Your task to perform on an android device: open chrome privacy settings Image 0: 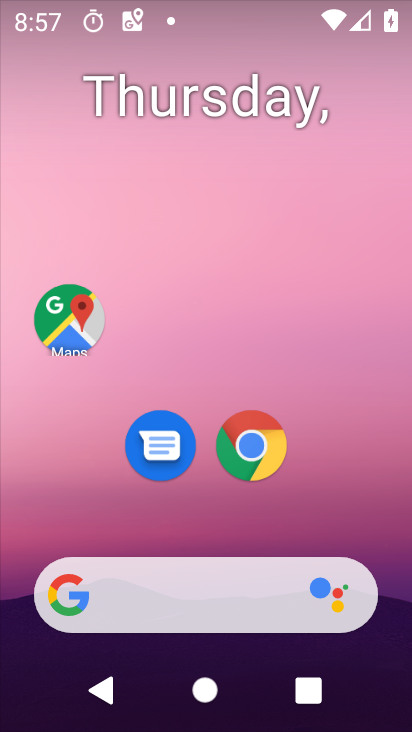
Step 0: press home button
Your task to perform on an android device: open chrome privacy settings Image 1: 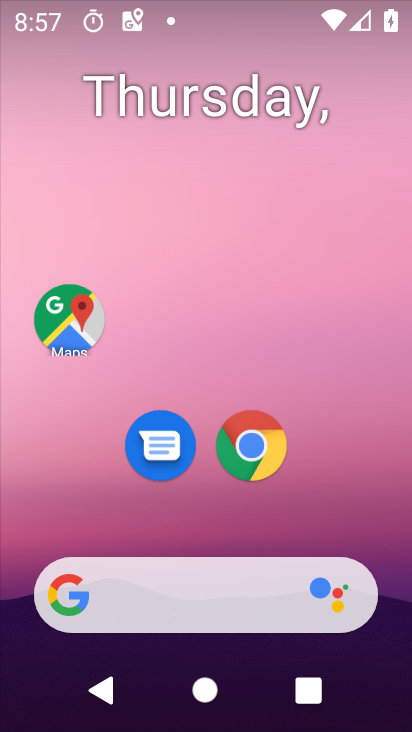
Step 1: click (261, 448)
Your task to perform on an android device: open chrome privacy settings Image 2: 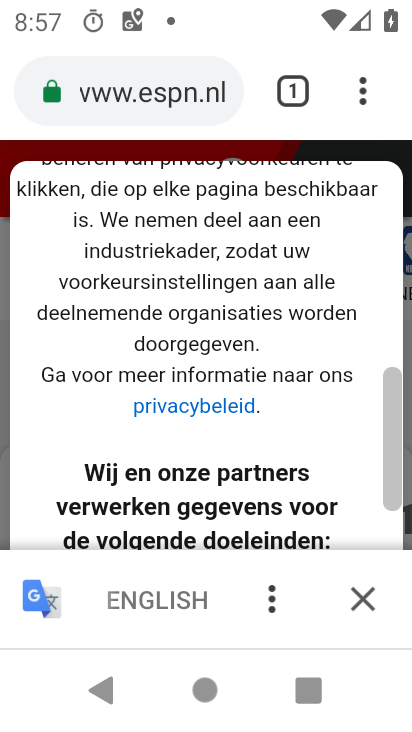
Step 2: click (372, 597)
Your task to perform on an android device: open chrome privacy settings Image 3: 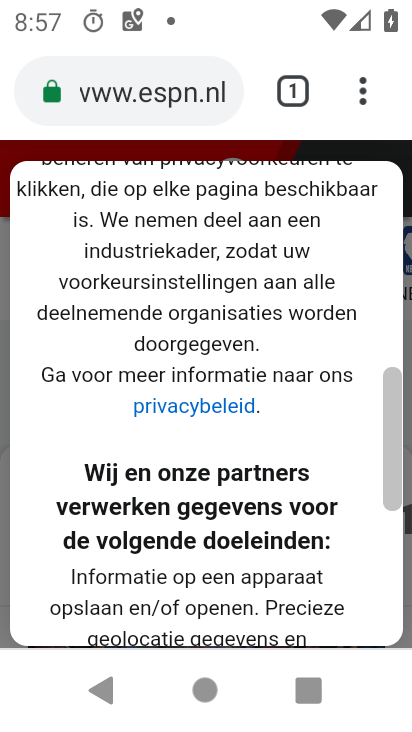
Step 3: click (363, 94)
Your task to perform on an android device: open chrome privacy settings Image 4: 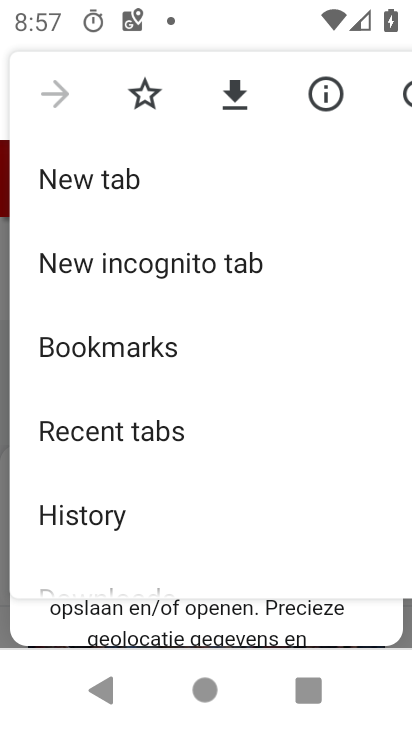
Step 4: drag from (106, 563) to (263, 177)
Your task to perform on an android device: open chrome privacy settings Image 5: 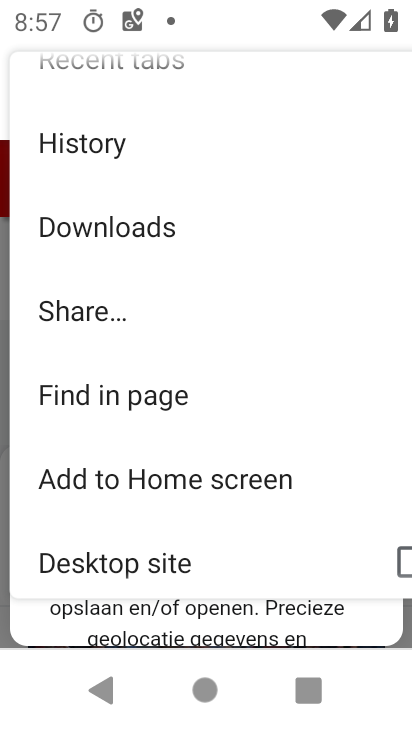
Step 5: drag from (104, 576) to (249, 222)
Your task to perform on an android device: open chrome privacy settings Image 6: 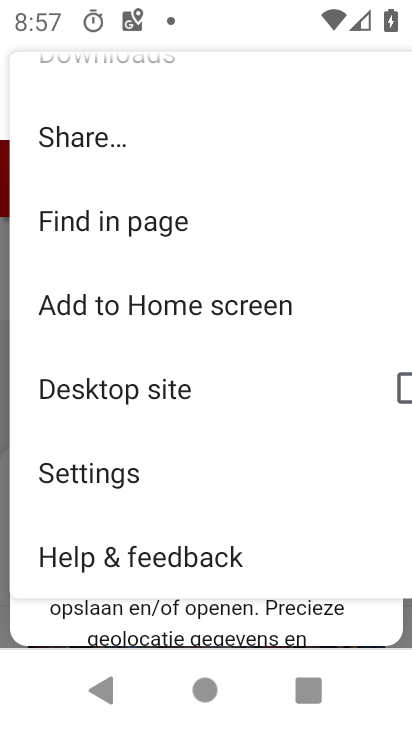
Step 6: click (157, 464)
Your task to perform on an android device: open chrome privacy settings Image 7: 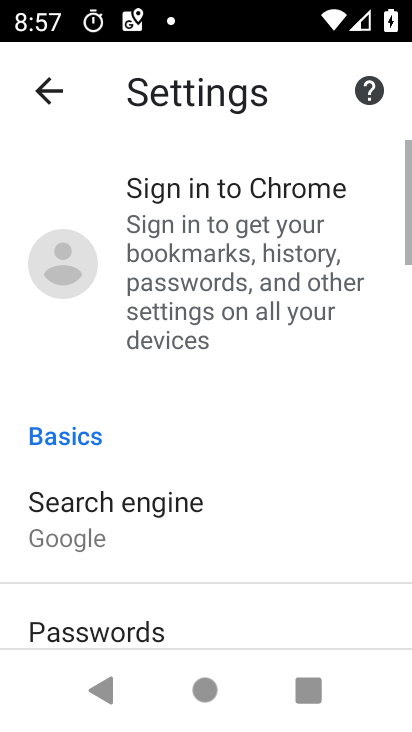
Step 7: drag from (97, 569) to (245, 212)
Your task to perform on an android device: open chrome privacy settings Image 8: 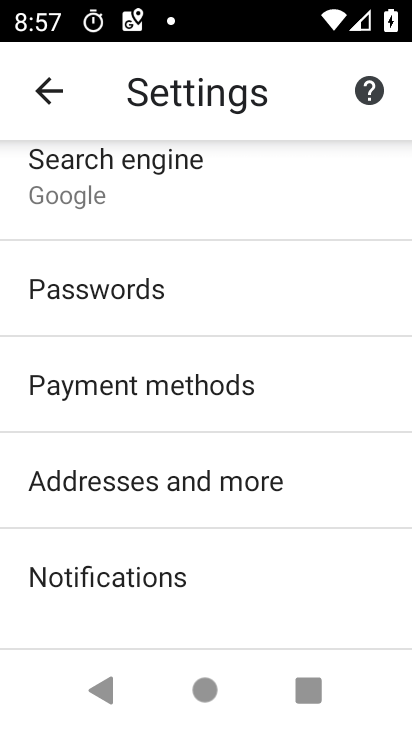
Step 8: drag from (152, 545) to (247, 240)
Your task to perform on an android device: open chrome privacy settings Image 9: 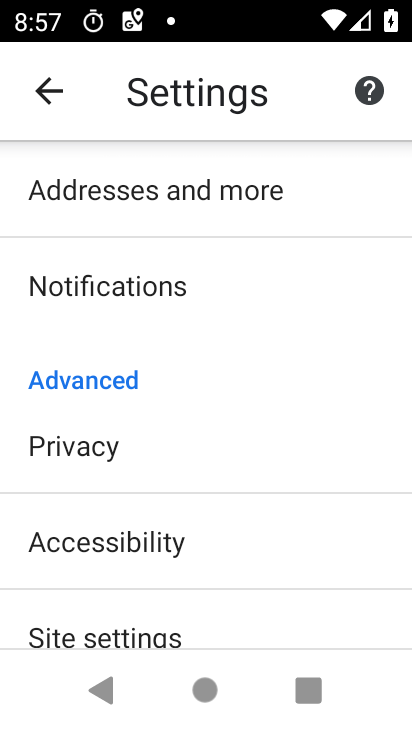
Step 9: click (194, 433)
Your task to perform on an android device: open chrome privacy settings Image 10: 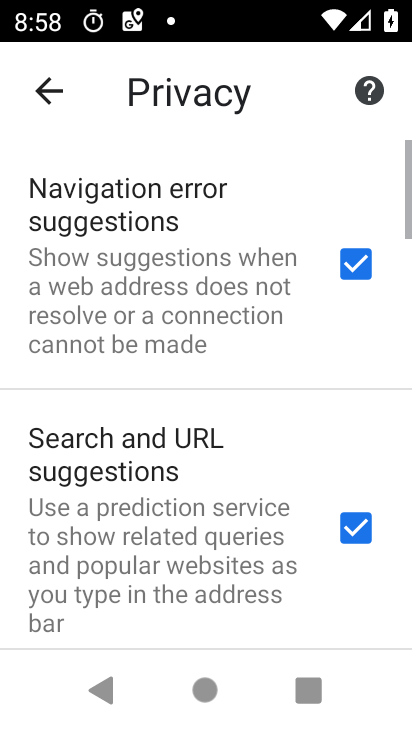
Step 10: task complete